Your task to perform on an android device: turn on the 24-hour format for clock Image 0: 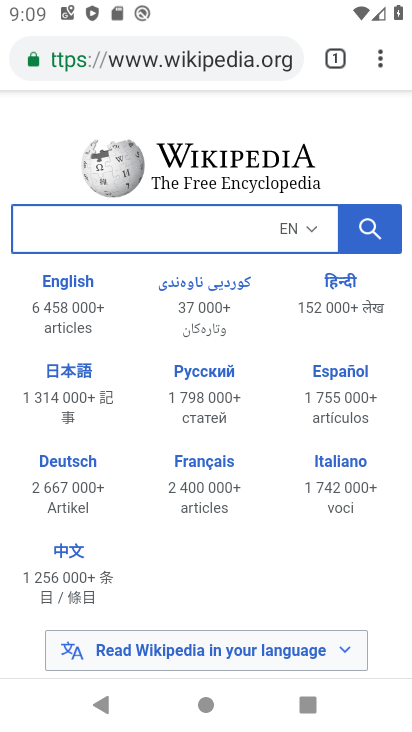
Step 0: press home button
Your task to perform on an android device: turn on the 24-hour format for clock Image 1: 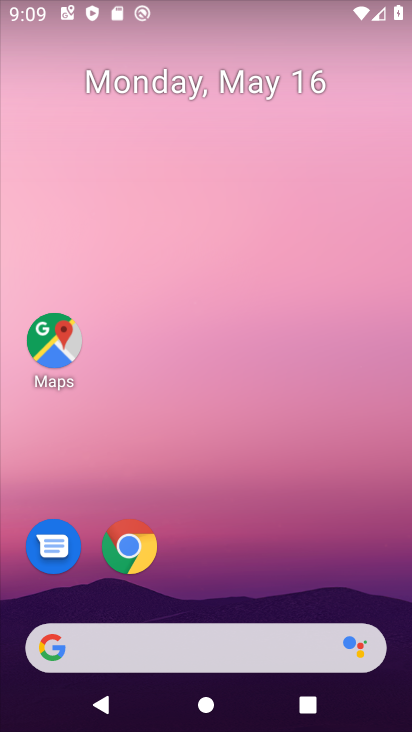
Step 1: drag from (266, 672) to (126, 263)
Your task to perform on an android device: turn on the 24-hour format for clock Image 2: 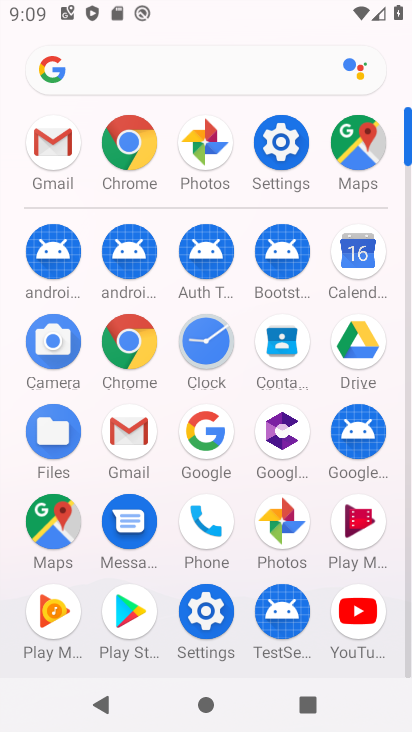
Step 2: click (197, 348)
Your task to perform on an android device: turn on the 24-hour format for clock Image 3: 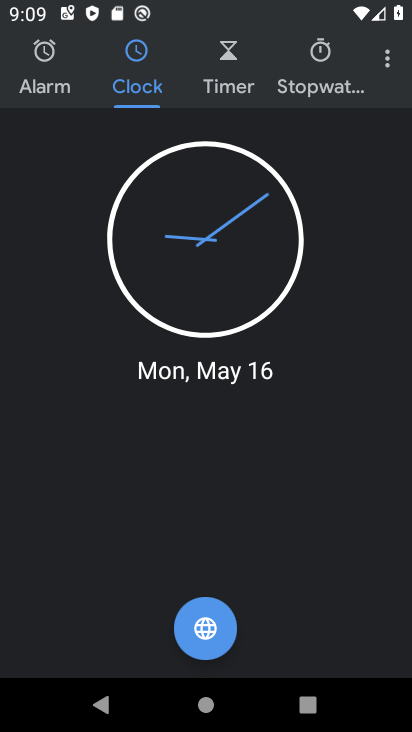
Step 3: click (368, 62)
Your task to perform on an android device: turn on the 24-hour format for clock Image 4: 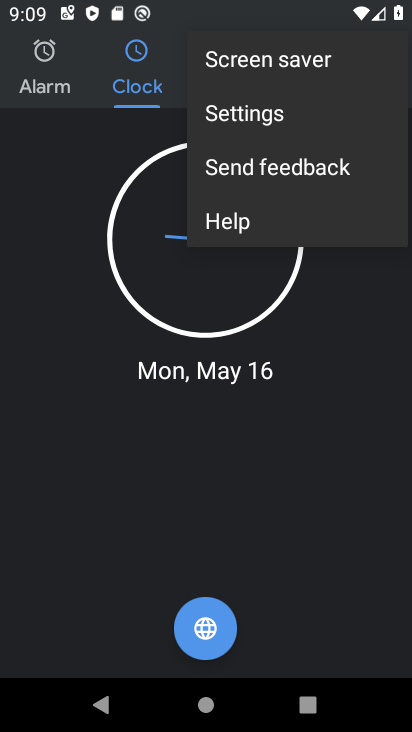
Step 4: click (263, 95)
Your task to perform on an android device: turn on the 24-hour format for clock Image 5: 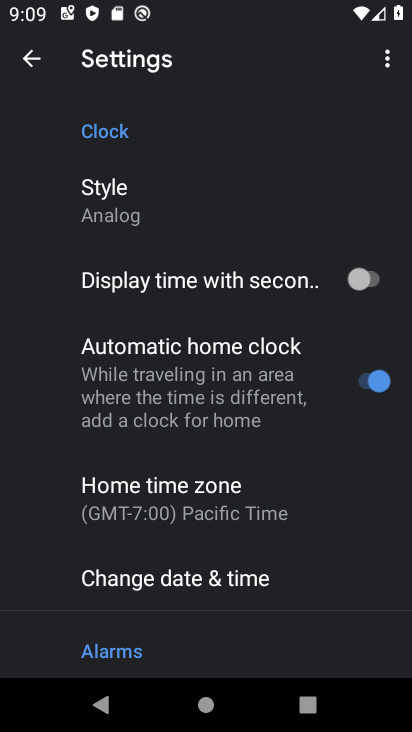
Step 5: click (170, 195)
Your task to perform on an android device: turn on the 24-hour format for clock Image 6: 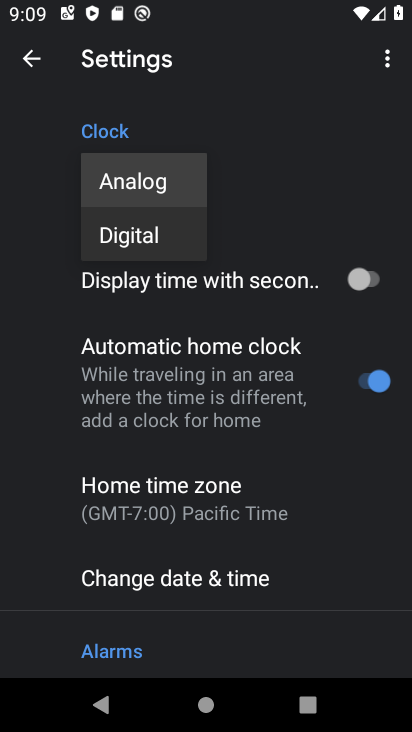
Step 6: drag from (240, 435) to (274, 233)
Your task to perform on an android device: turn on the 24-hour format for clock Image 7: 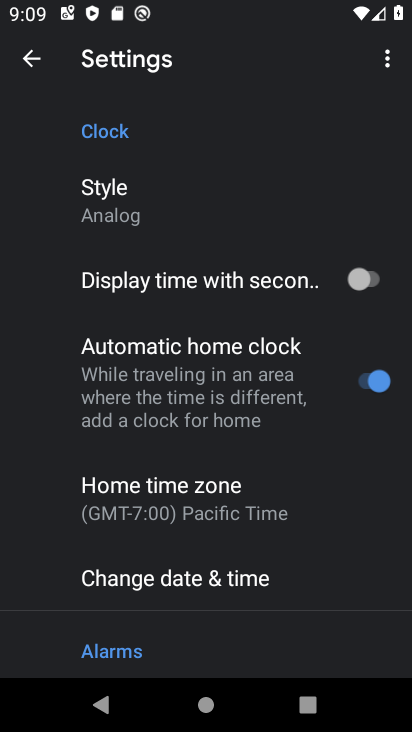
Step 7: click (209, 580)
Your task to perform on an android device: turn on the 24-hour format for clock Image 8: 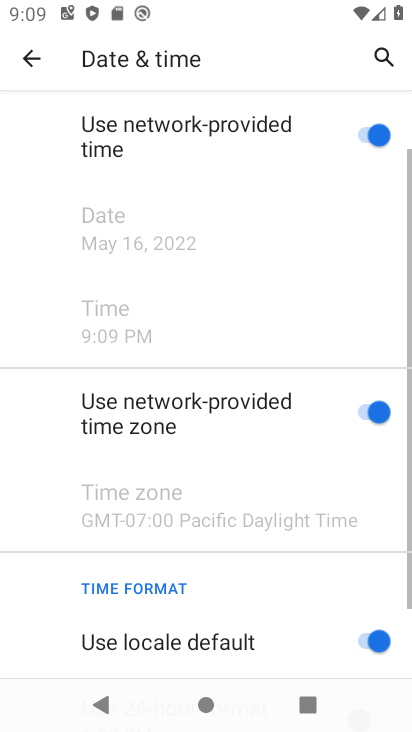
Step 8: drag from (217, 589) to (239, 419)
Your task to perform on an android device: turn on the 24-hour format for clock Image 9: 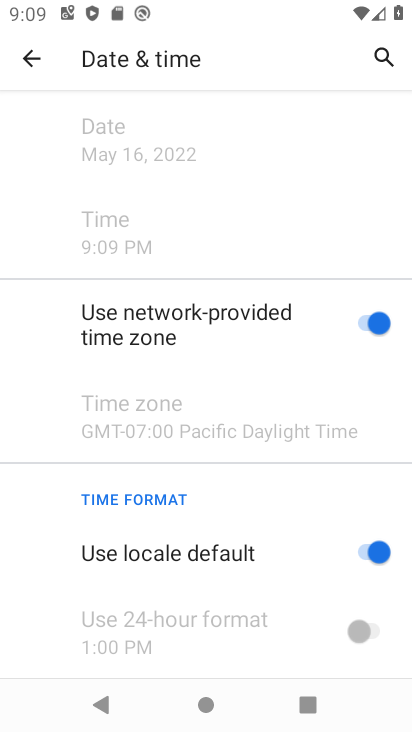
Step 9: click (352, 556)
Your task to perform on an android device: turn on the 24-hour format for clock Image 10: 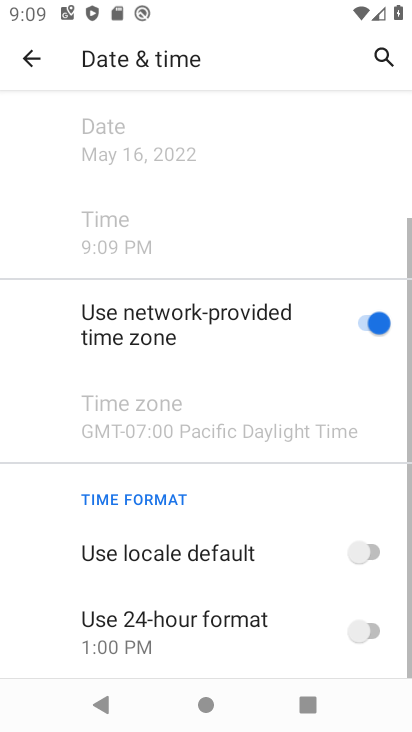
Step 10: click (368, 629)
Your task to perform on an android device: turn on the 24-hour format for clock Image 11: 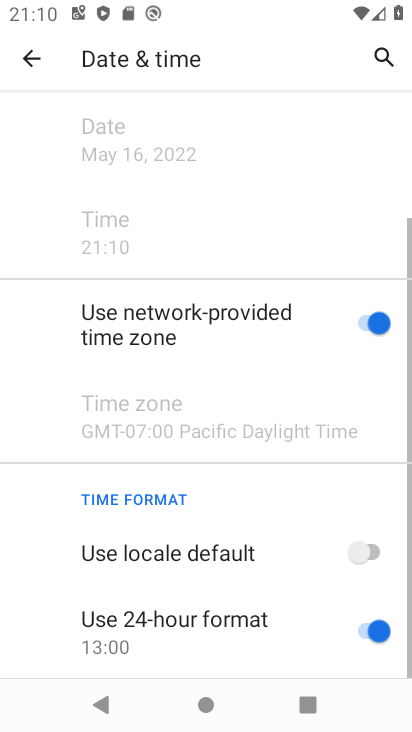
Step 11: task complete